Your task to perform on an android device: move a message to another label in the gmail app Image 0: 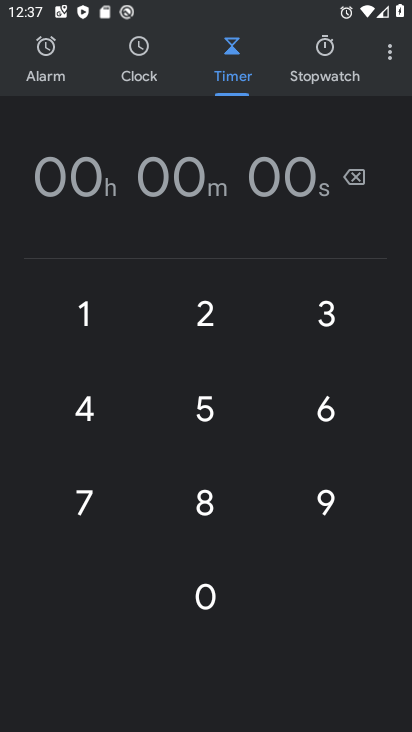
Step 0: press back button
Your task to perform on an android device: move a message to another label in the gmail app Image 1: 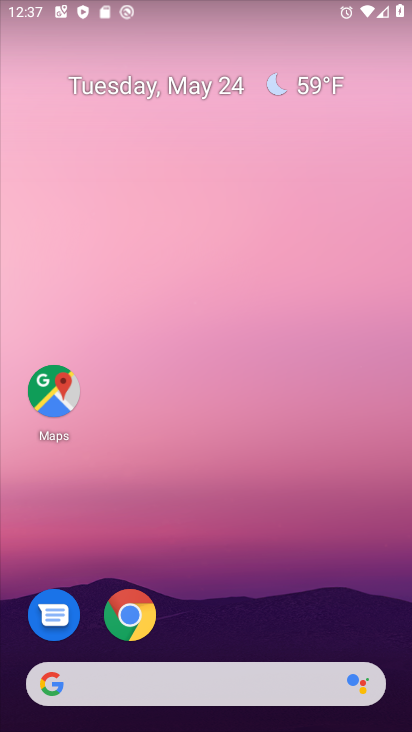
Step 1: drag from (204, 608) to (193, 72)
Your task to perform on an android device: move a message to another label in the gmail app Image 2: 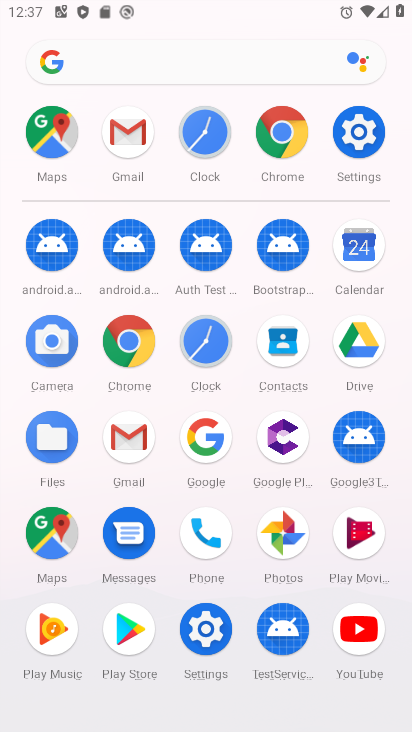
Step 2: drag from (14, 598) to (4, 243)
Your task to perform on an android device: move a message to another label in the gmail app Image 3: 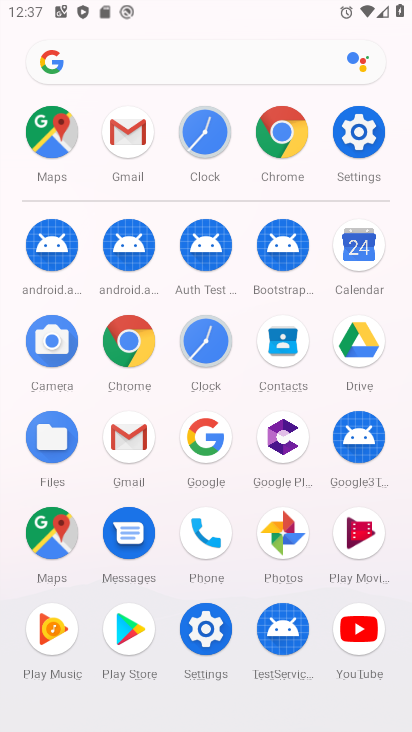
Step 3: click (129, 430)
Your task to perform on an android device: move a message to another label in the gmail app Image 4: 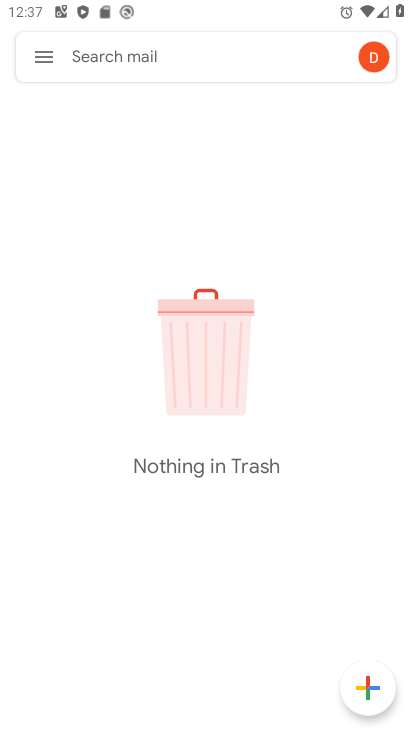
Step 4: click (39, 50)
Your task to perform on an android device: move a message to another label in the gmail app Image 5: 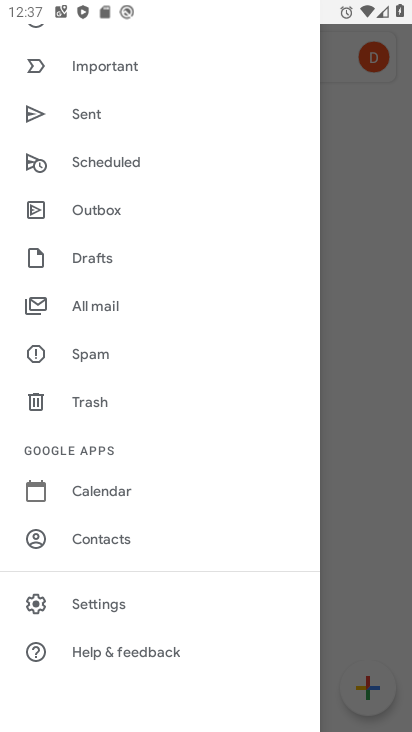
Step 5: click (105, 301)
Your task to perform on an android device: move a message to another label in the gmail app Image 6: 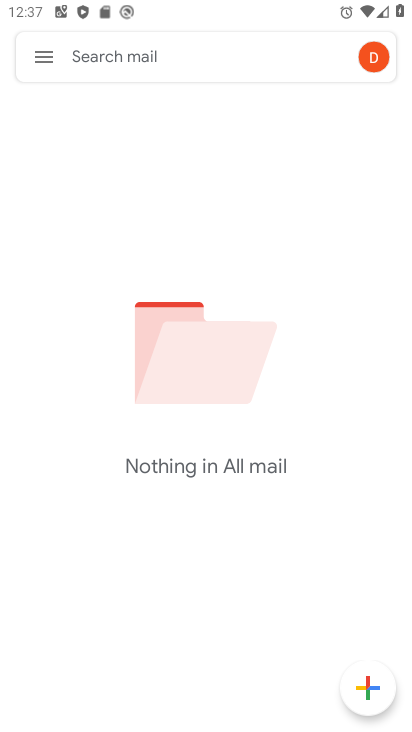
Step 6: click (43, 55)
Your task to perform on an android device: move a message to another label in the gmail app Image 7: 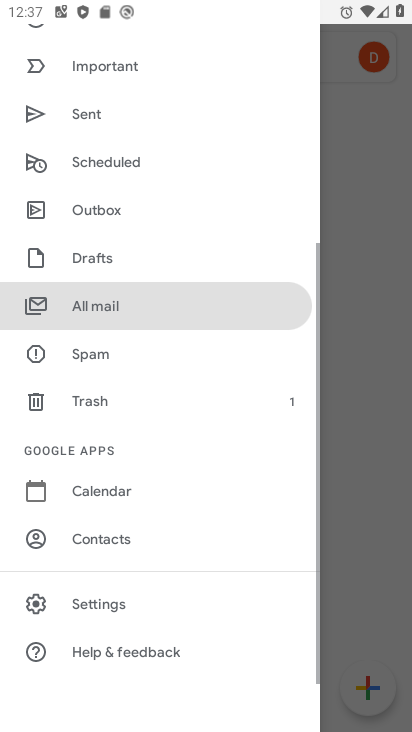
Step 7: drag from (145, 127) to (191, 578)
Your task to perform on an android device: move a message to another label in the gmail app Image 8: 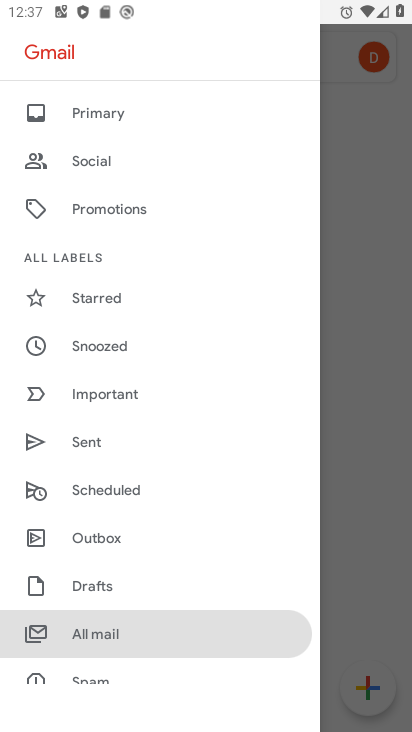
Step 8: click (119, 111)
Your task to perform on an android device: move a message to another label in the gmail app Image 9: 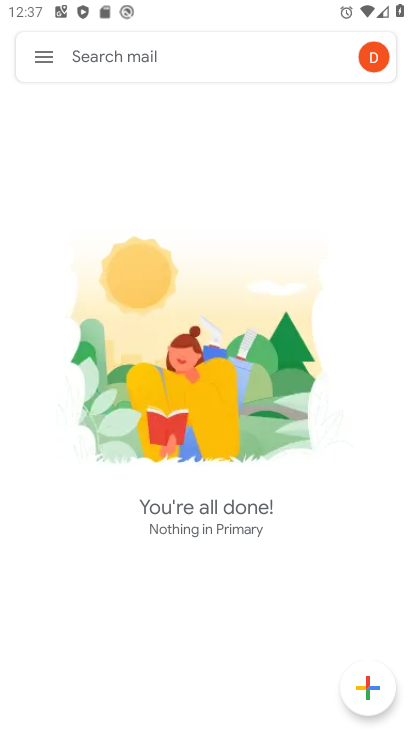
Step 9: click (36, 55)
Your task to perform on an android device: move a message to another label in the gmail app Image 10: 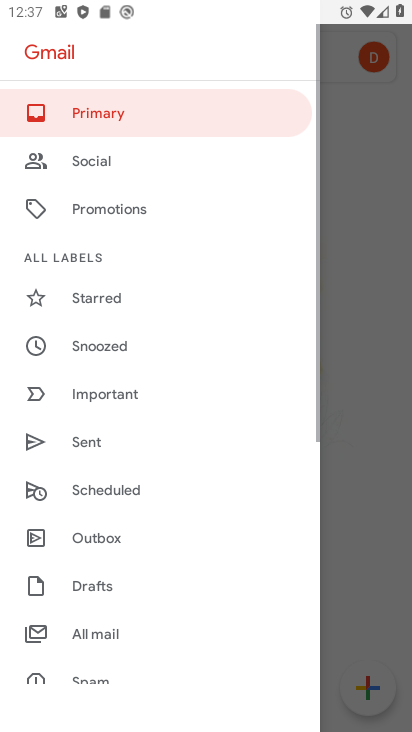
Step 10: drag from (160, 589) to (156, 146)
Your task to perform on an android device: move a message to another label in the gmail app Image 11: 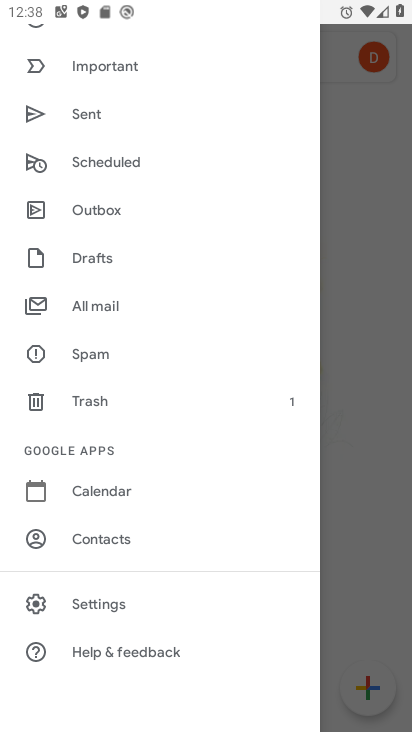
Step 11: click (118, 309)
Your task to perform on an android device: move a message to another label in the gmail app Image 12: 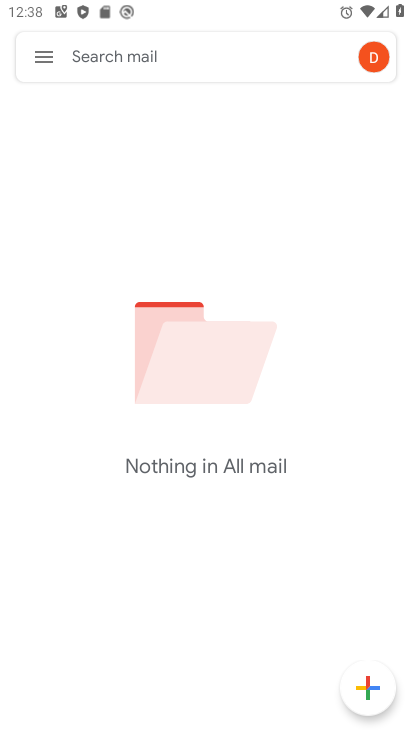
Step 12: task complete